Your task to perform on an android device: turn off javascript in the chrome app Image 0: 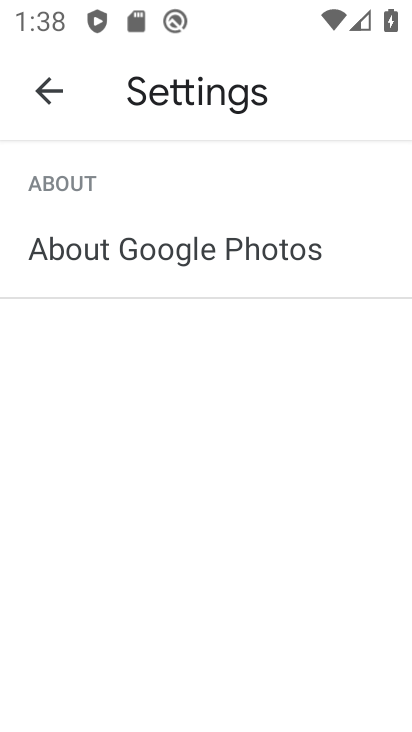
Step 0: press home button
Your task to perform on an android device: turn off javascript in the chrome app Image 1: 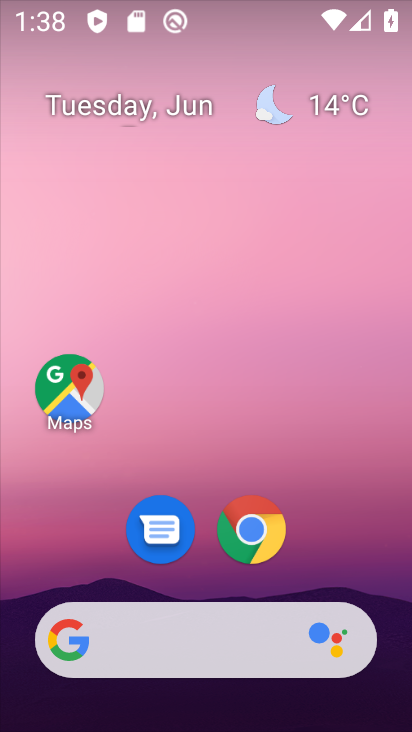
Step 1: click (251, 531)
Your task to perform on an android device: turn off javascript in the chrome app Image 2: 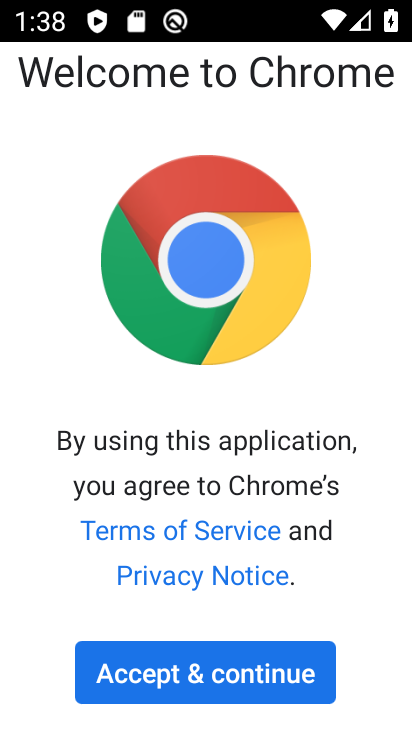
Step 2: click (200, 677)
Your task to perform on an android device: turn off javascript in the chrome app Image 3: 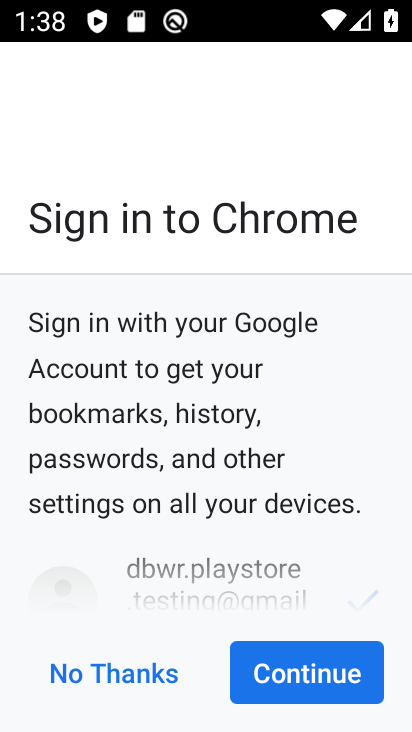
Step 3: click (305, 671)
Your task to perform on an android device: turn off javascript in the chrome app Image 4: 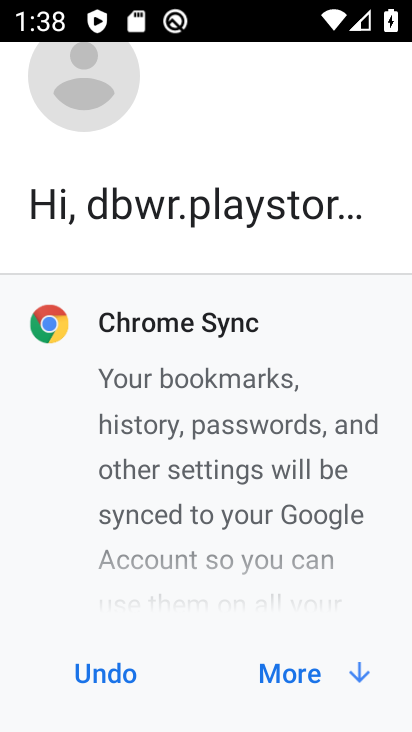
Step 4: click (305, 671)
Your task to perform on an android device: turn off javascript in the chrome app Image 5: 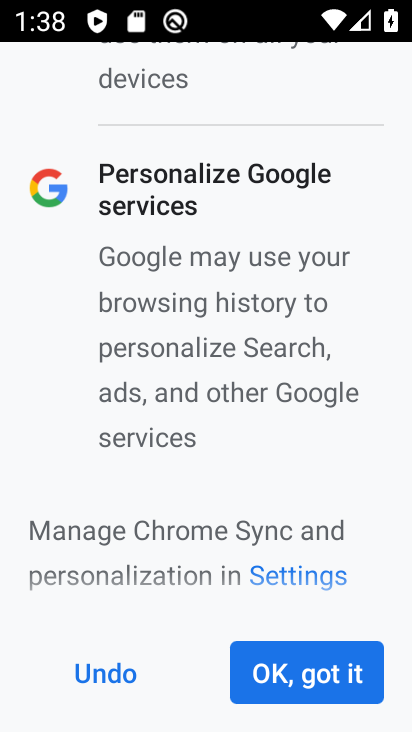
Step 5: click (305, 671)
Your task to perform on an android device: turn off javascript in the chrome app Image 6: 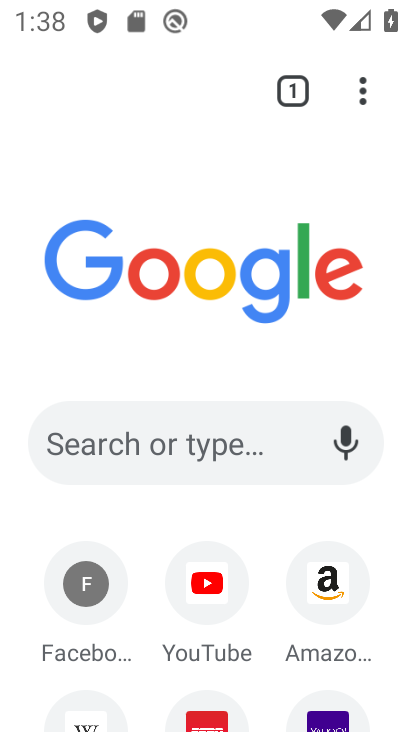
Step 6: click (345, 106)
Your task to perform on an android device: turn off javascript in the chrome app Image 7: 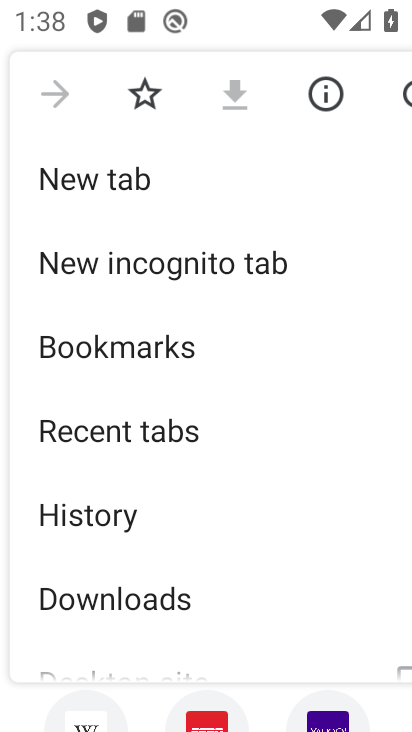
Step 7: drag from (259, 356) to (247, 120)
Your task to perform on an android device: turn off javascript in the chrome app Image 8: 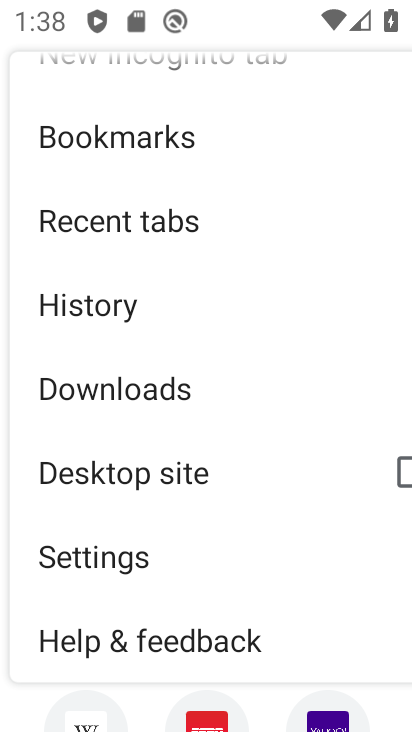
Step 8: click (107, 554)
Your task to perform on an android device: turn off javascript in the chrome app Image 9: 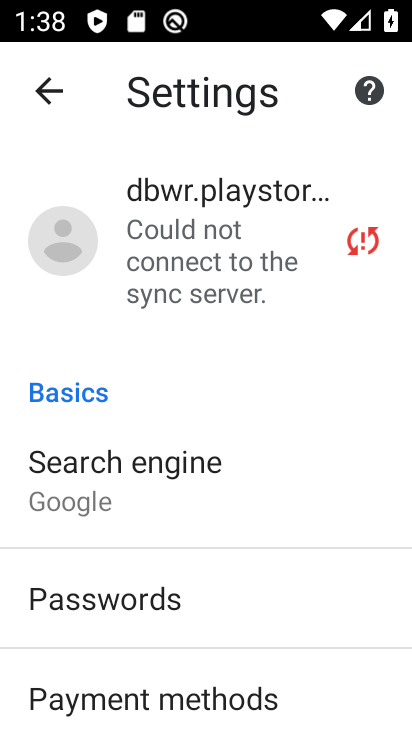
Step 9: drag from (241, 581) to (244, 140)
Your task to perform on an android device: turn off javascript in the chrome app Image 10: 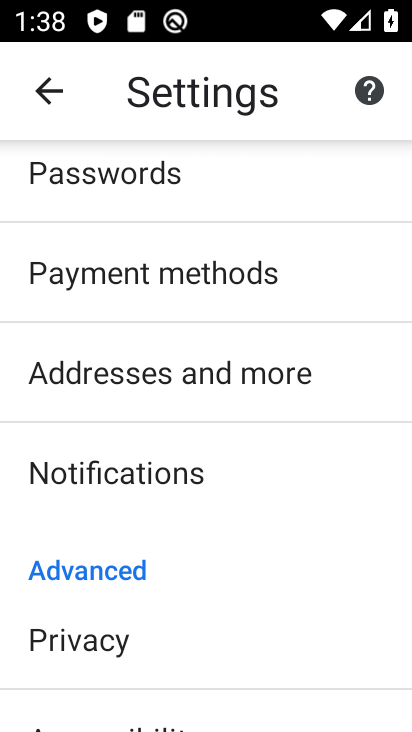
Step 10: drag from (155, 659) to (120, 338)
Your task to perform on an android device: turn off javascript in the chrome app Image 11: 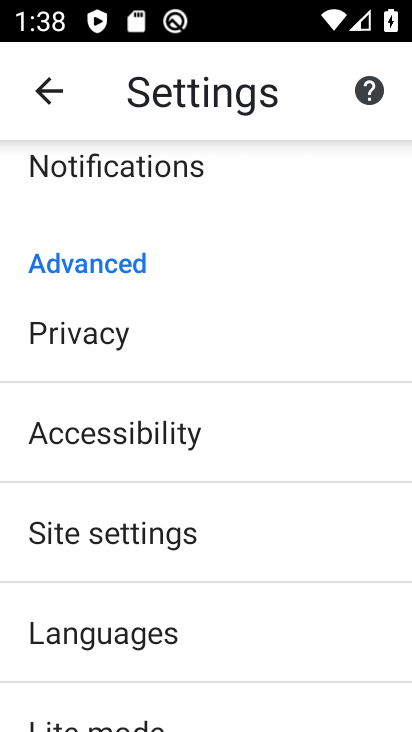
Step 11: click (66, 510)
Your task to perform on an android device: turn off javascript in the chrome app Image 12: 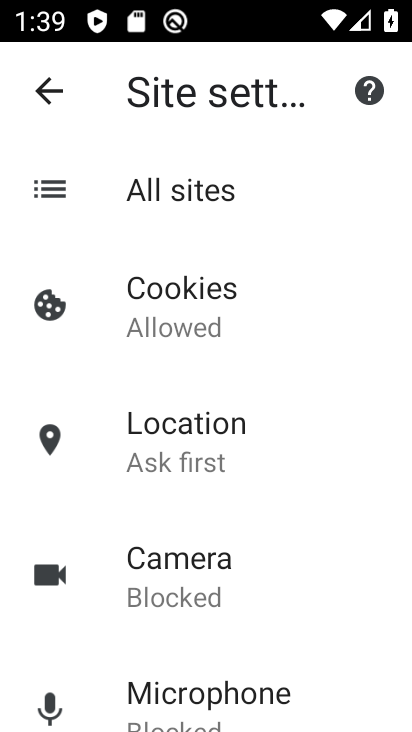
Step 12: drag from (214, 565) to (204, 237)
Your task to perform on an android device: turn off javascript in the chrome app Image 13: 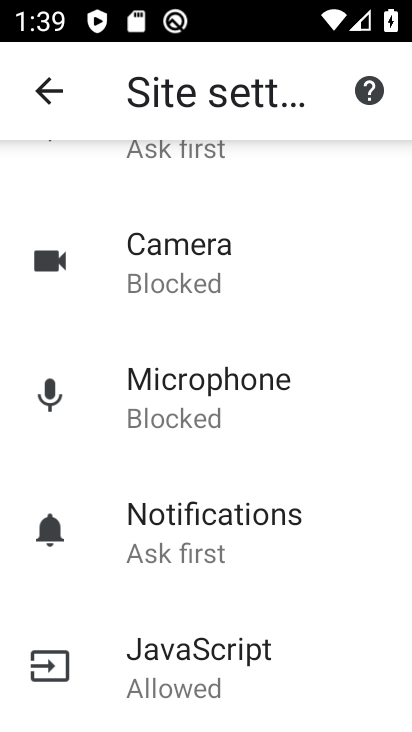
Step 13: click (187, 679)
Your task to perform on an android device: turn off javascript in the chrome app Image 14: 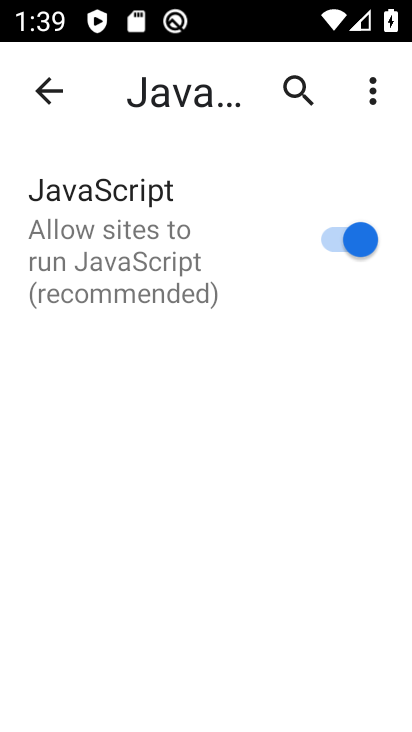
Step 14: click (344, 242)
Your task to perform on an android device: turn off javascript in the chrome app Image 15: 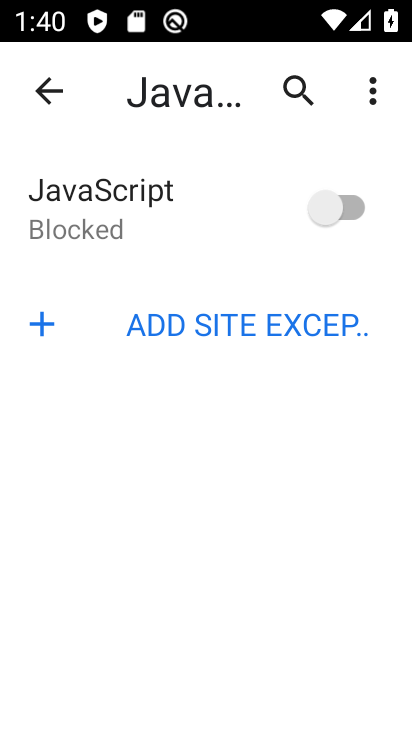
Step 15: task complete